Your task to perform on an android device: open a new tab in the chrome app Image 0: 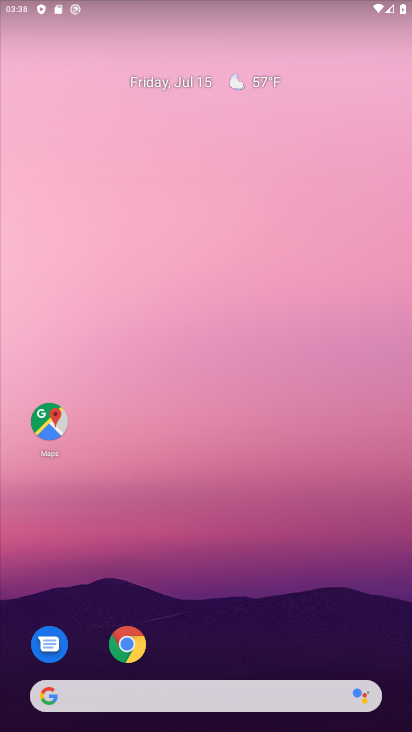
Step 0: click (137, 646)
Your task to perform on an android device: open a new tab in the chrome app Image 1: 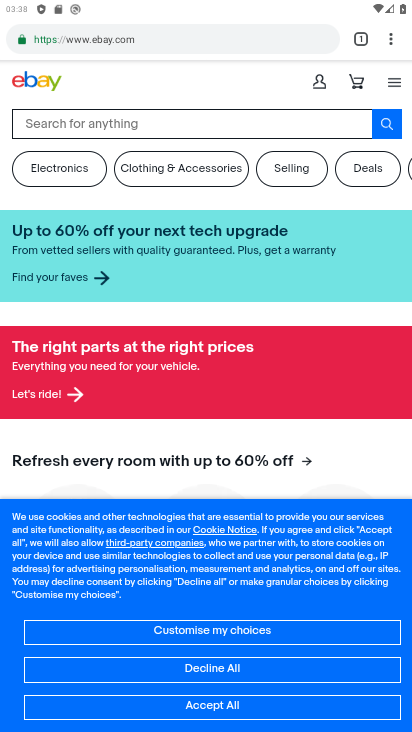
Step 1: click (395, 41)
Your task to perform on an android device: open a new tab in the chrome app Image 2: 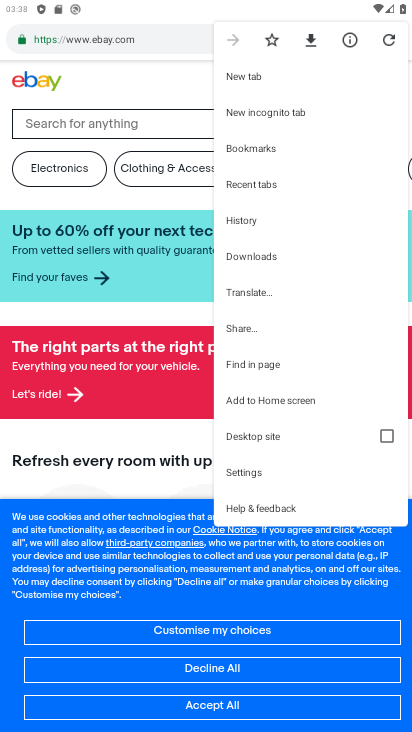
Step 2: click (285, 72)
Your task to perform on an android device: open a new tab in the chrome app Image 3: 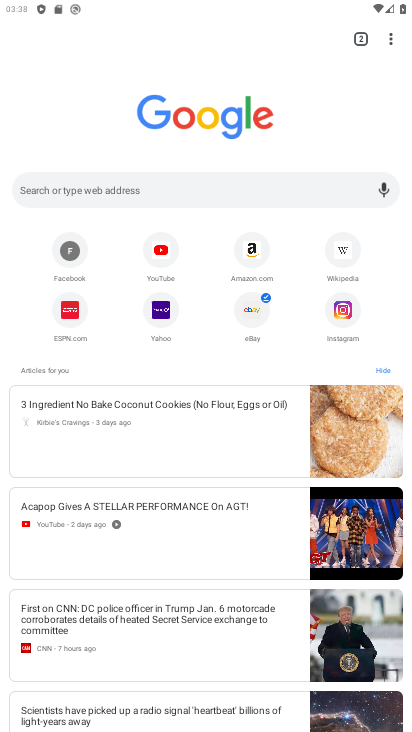
Step 3: task complete